Your task to perform on an android device: open wifi settings Image 0: 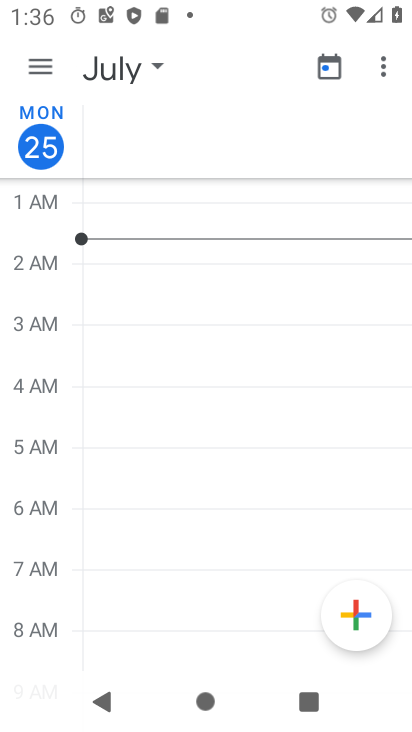
Step 0: press home button
Your task to perform on an android device: open wifi settings Image 1: 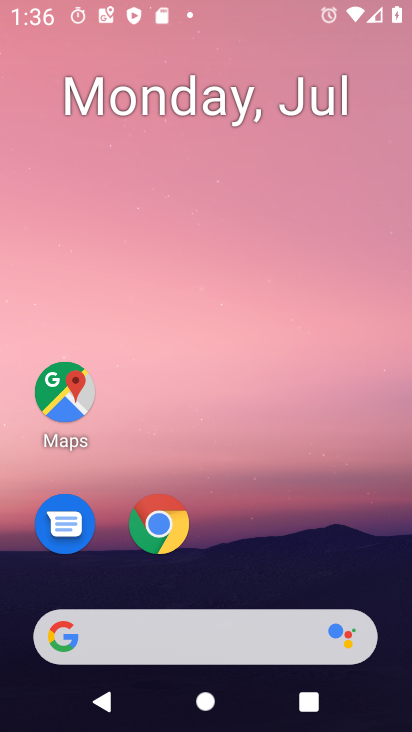
Step 1: press home button
Your task to perform on an android device: open wifi settings Image 2: 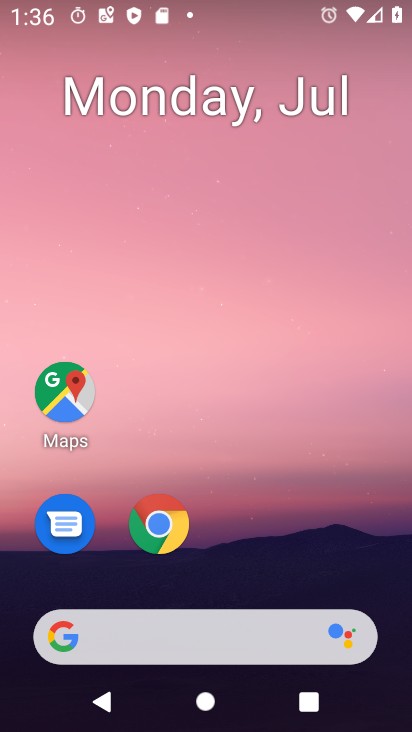
Step 2: drag from (257, 536) to (390, 139)
Your task to perform on an android device: open wifi settings Image 3: 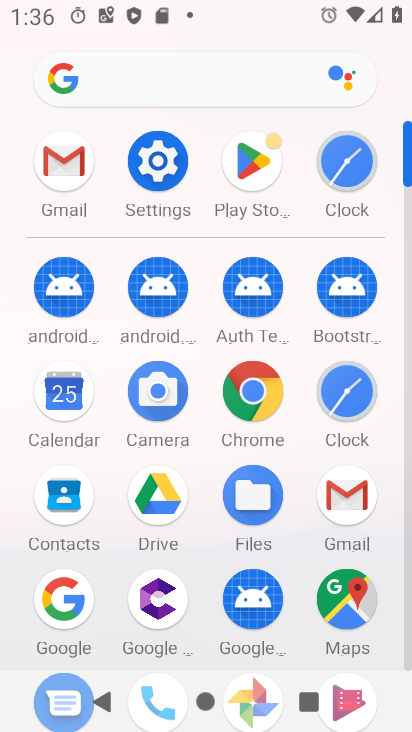
Step 3: click (179, 149)
Your task to perform on an android device: open wifi settings Image 4: 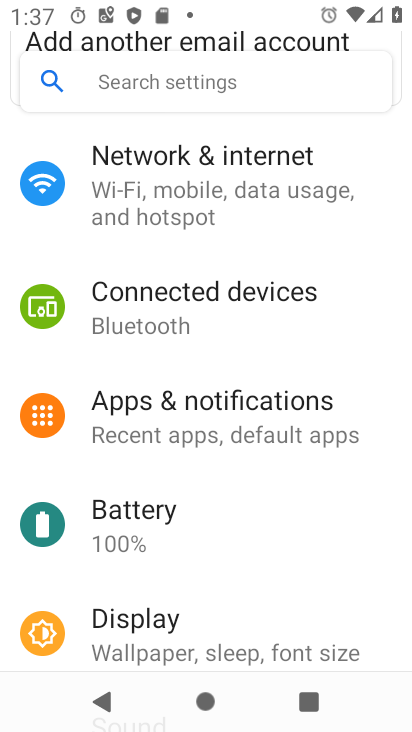
Step 4: click (182, 172)
Your task to perform on an android device: open wifi settings Image 5: 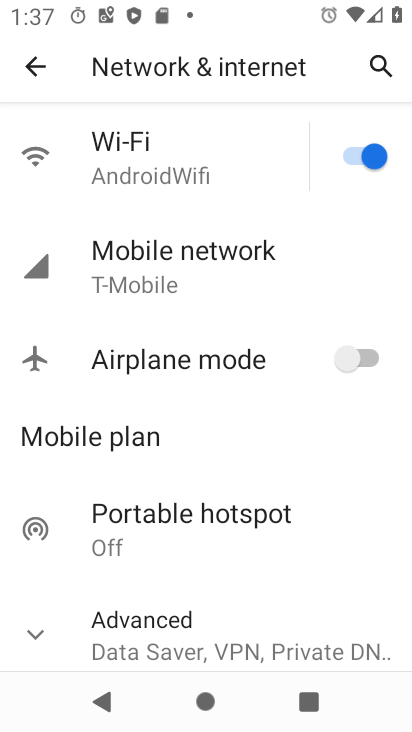
Step 5: task complete